Your task to perform on an android device: Go to Yahoo.com Image 0: 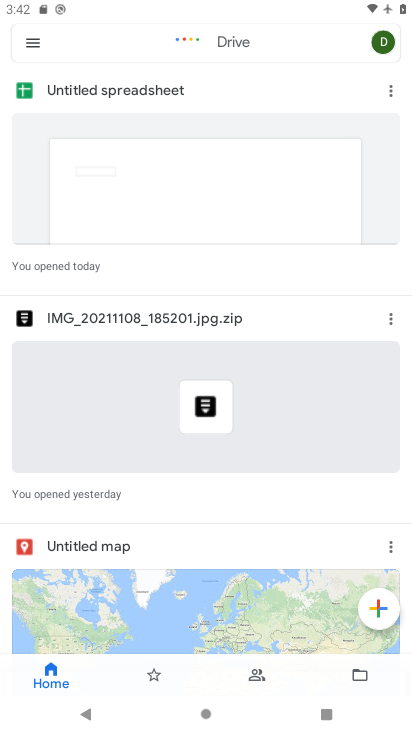
Step 0: press home button
Your task to perform on an android device: Go to Yahoo.com Image 1: 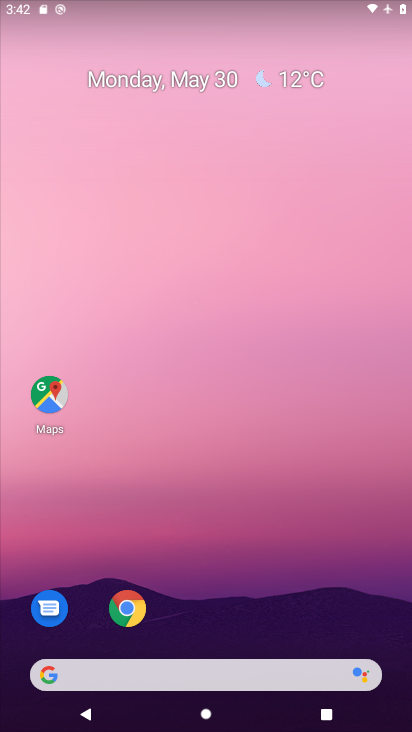
Step 1: click (145, 607)
Your task to perform on an android device: Go to Yahoo.com Image 2: 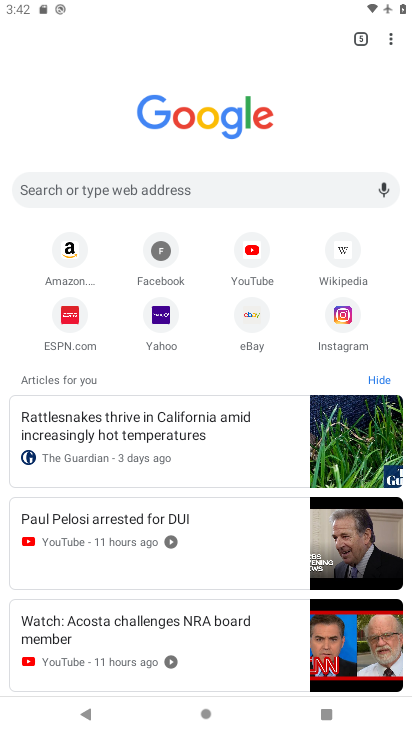
Step 2: click (156, 314)
Your task to perform on an android device: Go to Yahoo.com Image 3: 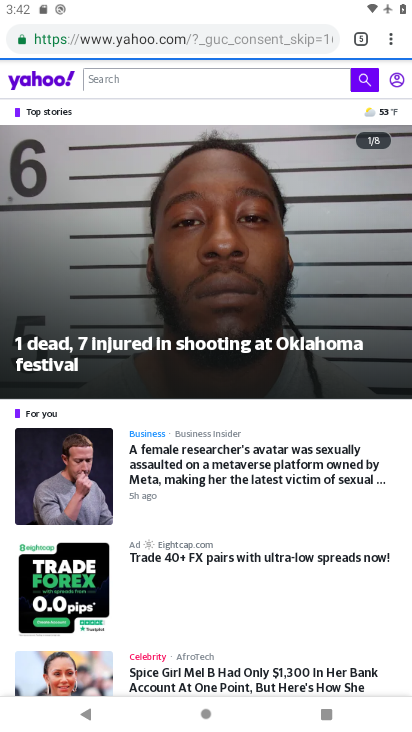
Step 3: task complete